Your task to perform on an android device: Search for sushi restaurants on Maps Image 0: 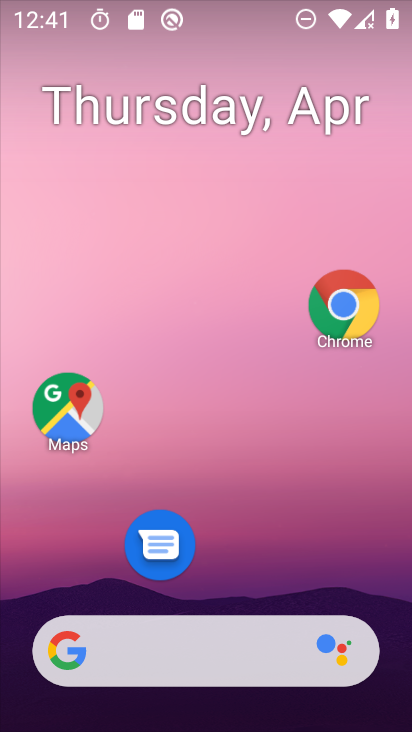
Step 0: drag from (250, 470) to (296, 69)
Your task to perform on an android device: Search for sushi restaurants on Maps Image 1: 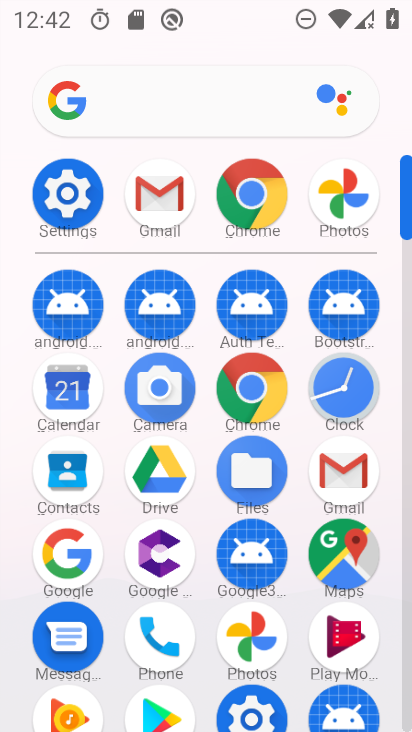
Step 1: click (358, 556)
Your task to perform on an android device: Search for sushi restaurants on Maps Image 2: 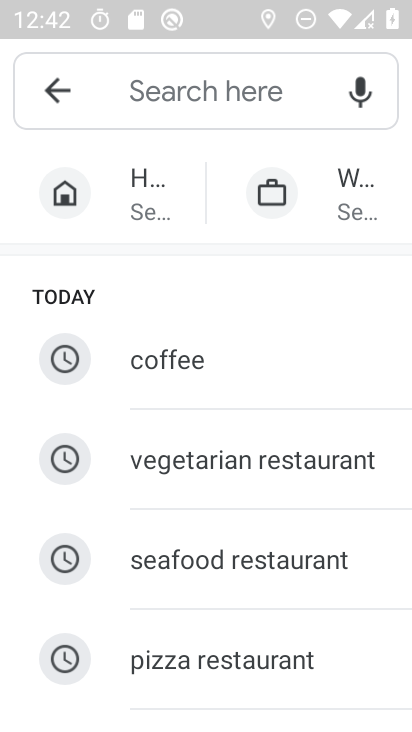
Step 2: drag from (275, 576) to (295, 327)
Your task to perform on an android device: Search for sushi restaurants on Maps Image 3: 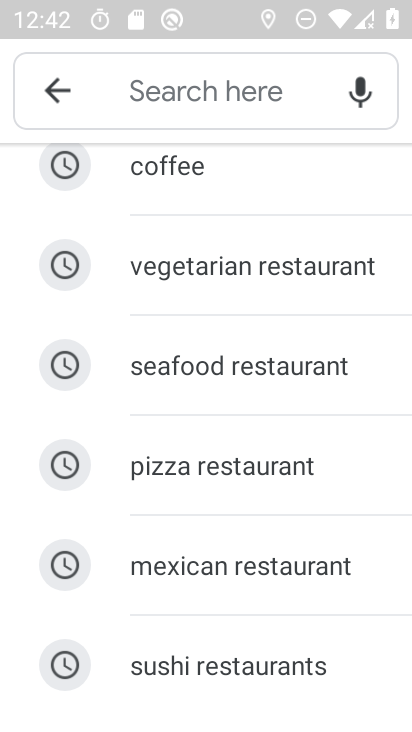
Step 3: drag from (259, 537) to (312, 178)
Your task to perform on an android device: Search for sushi restaurants on Maps Image 4: 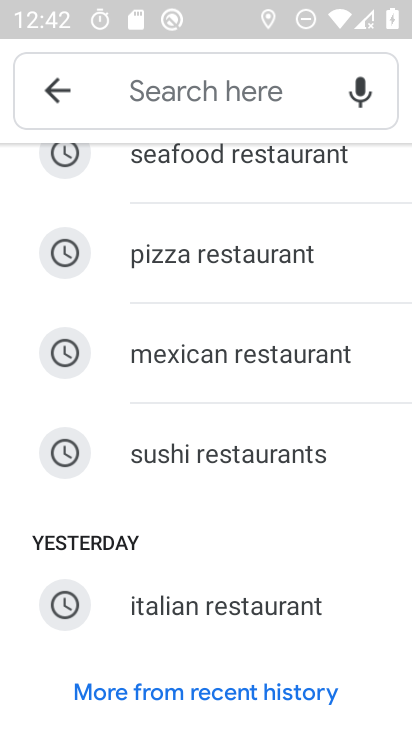
Step 4: click (261, 459)
Your task to perform on an android device: Search for sushi restaurants on Maps Image 5: 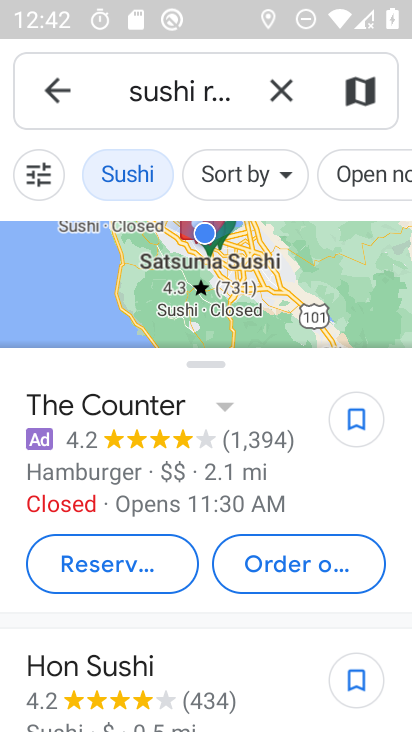
Step 5: task complete